Your task to perform on an android device: Open Maps and search for coffee Image 0: 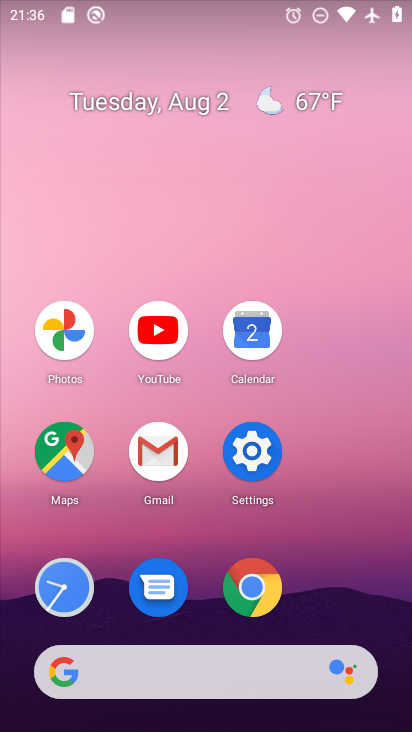
Step 0: click (65, 449)
Your task to perform on an android device: Open Maps and search for coffee Image 1: 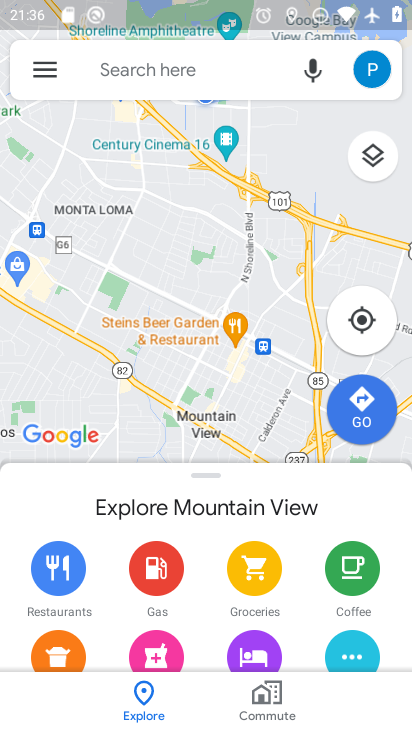
Step 1: click (155, 76)
Your task to perform on an android device: Open Maps and search for coffee Image 2: 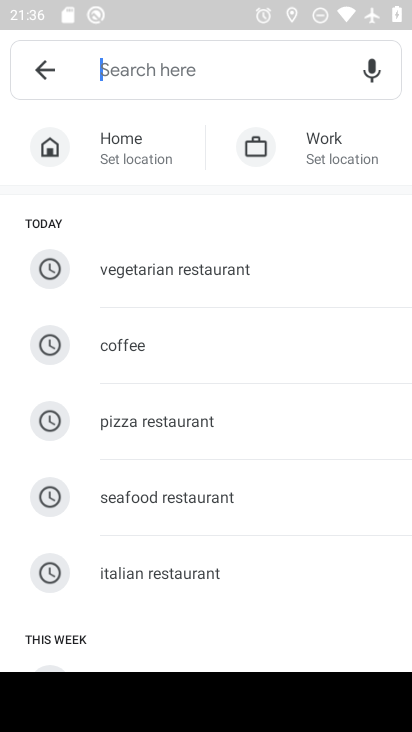
Step 2: click (134, 337)
Your task to perform on an android device: Open Maps and search for coffee Image 3: 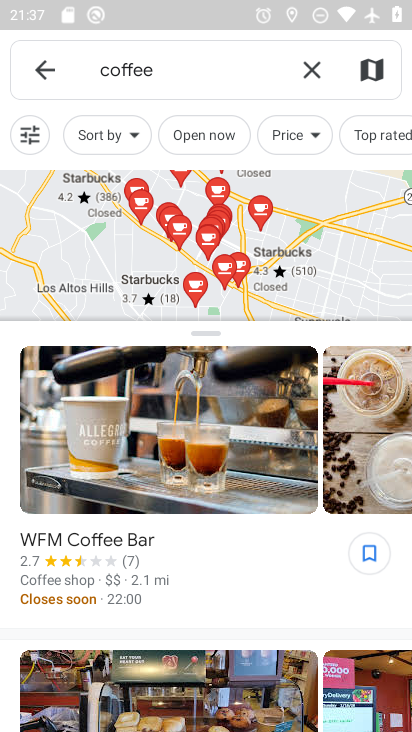
Step 3: task complete